Your task to perform on an android device: change keyboard looks Image 0: 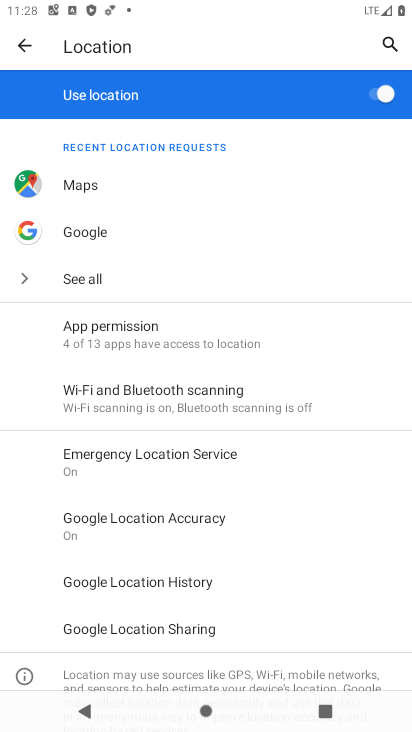
Step 0: press home button
Your task to perform on an android device: change keyboard looks Image 1: 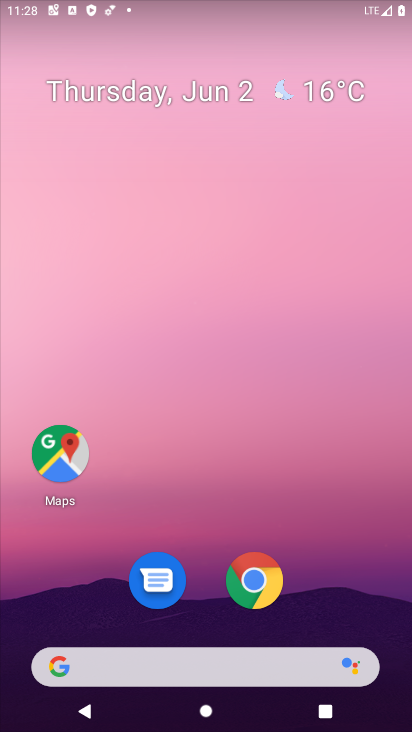
Step 1: drag from (217, 650) to (263, 170)
Your task to perform on an android device: change keyboard looks Image 2: 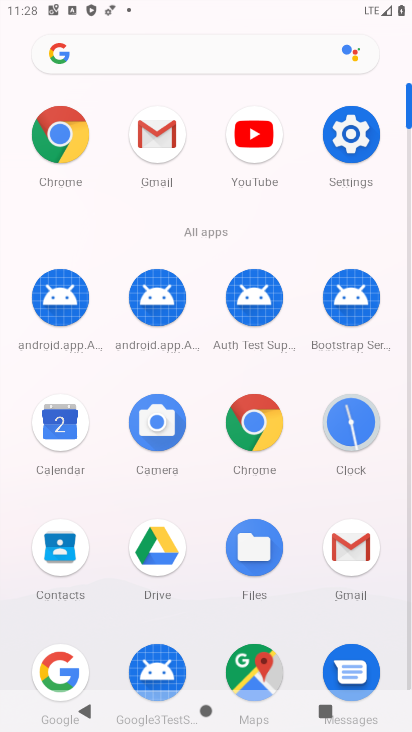
Step 2: click (363, 153)
Your task to perform on an android device: change keyboard looks Image 3: 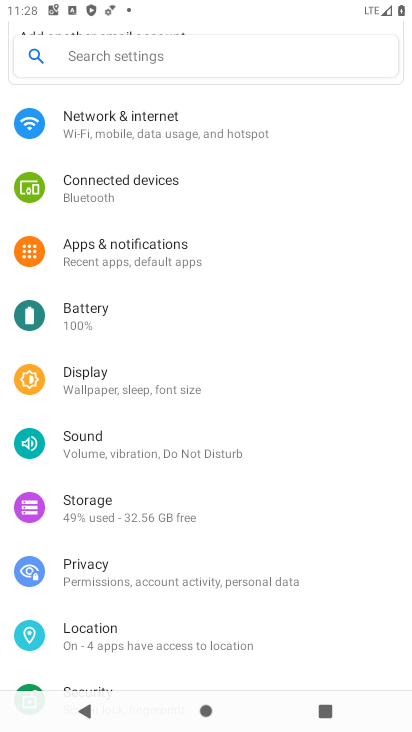
Step 3: drag from (164, 468) to (210, 276)
Your task to perform on an android device: change keyboard looks Image 4: 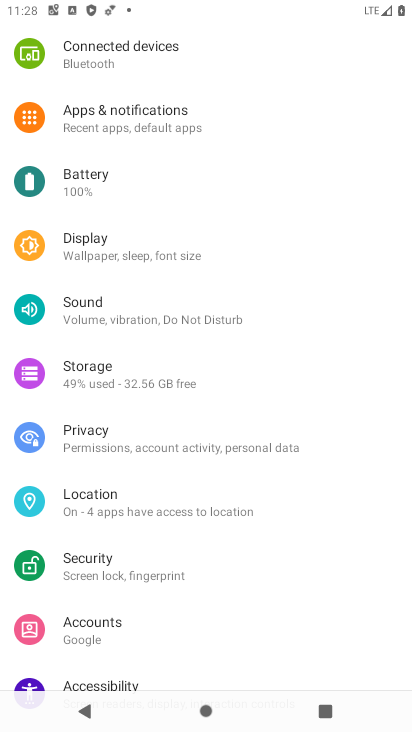
Step 4: drag from (165, 538) to (232, 252)
Your task to perform on an android device: change keyboard looks Image 5: 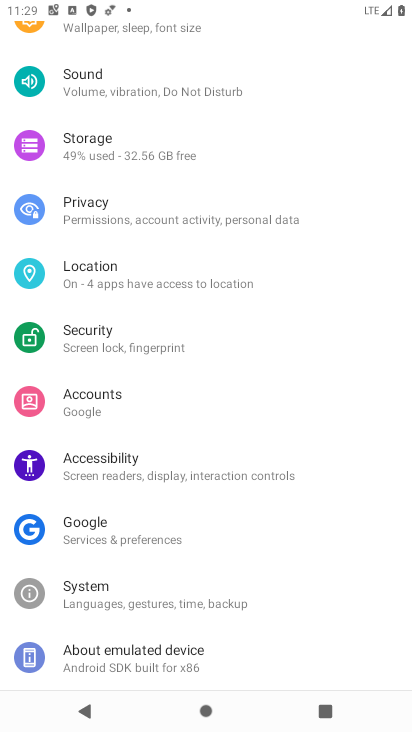
Step 5: click (121, 588)
Your task to perform on an android device: change keyboard looks Image 6: 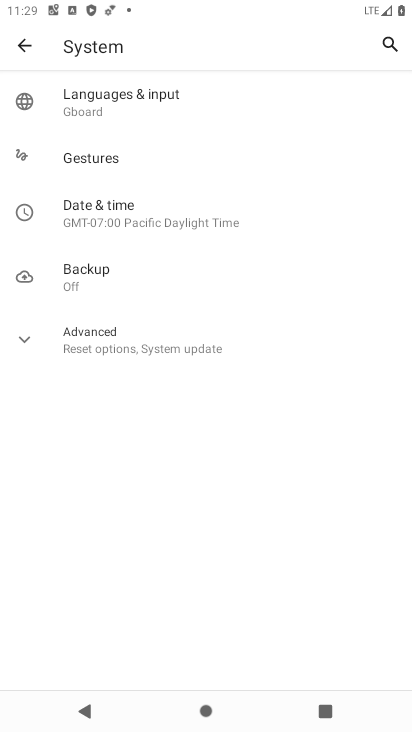
Step 6: click (228, 100)
Your task to perform on an android device: change keyboard looks Image 7: 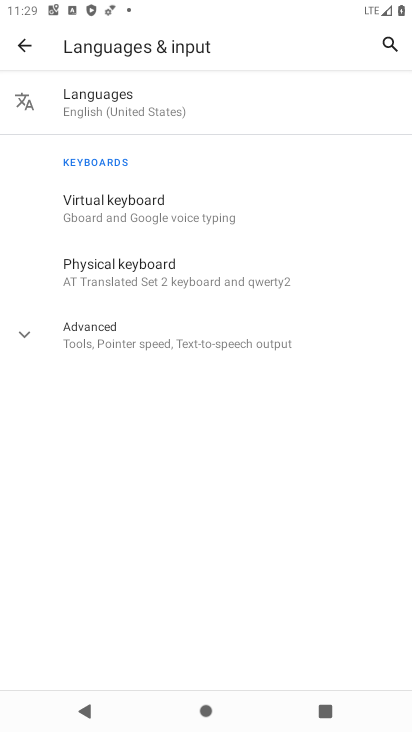
Step 7: click (133, 215)
Your task to perform on an android device: change keyboard looks Image 8: 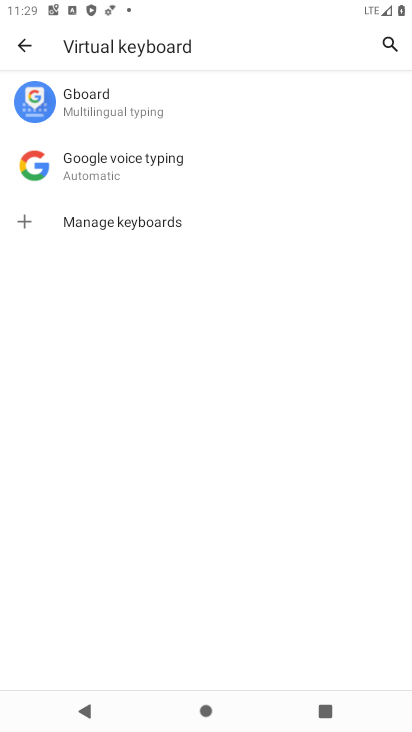
Step 8: click (185, 109)
Your task to perform on an android device: change keyboard looks Image 9: 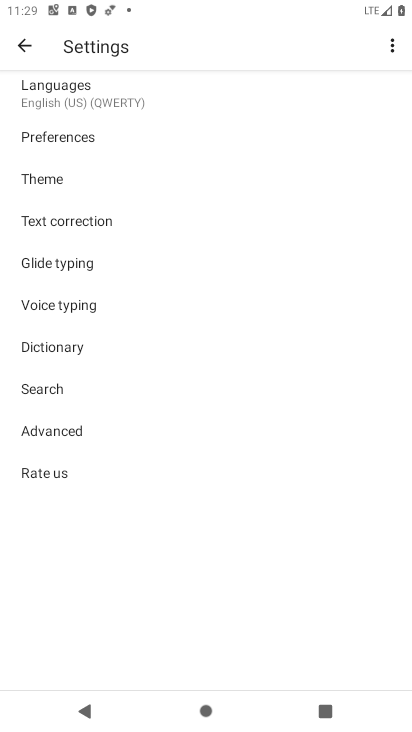
Step 9: click (42, 186)
Your task to perform on an android device: change keyboard looks Image 10: 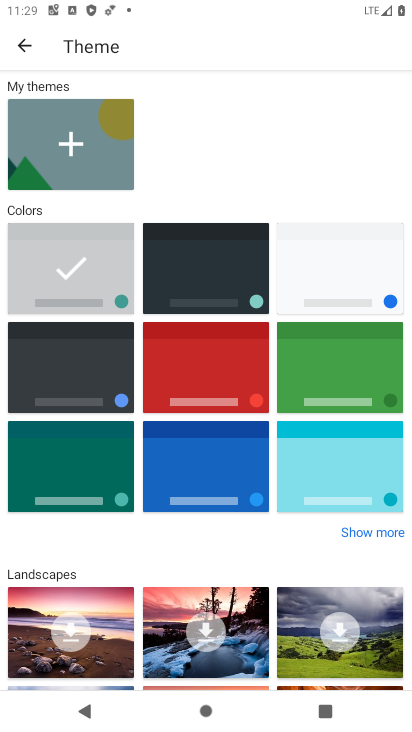
Step 10: click (329, 481)
Your task to perform on an android device: change keyboard looks Image 11: 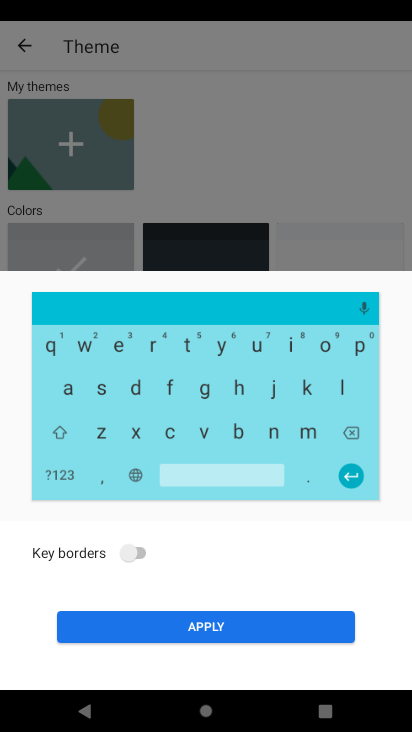
Step 11: click (329, 481)
Your task to perform on an android device: change keyboard looks Image 12: 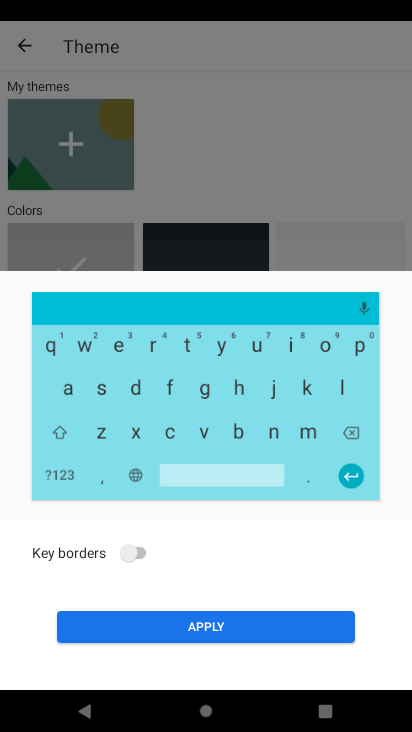
Step 12: click (163, 638)
Your task to perform on an android device: change keyboard looks Image 13: 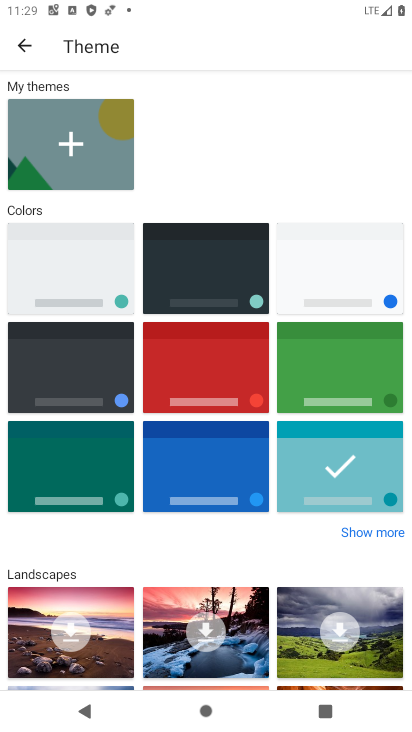
Step 13: task complete